Your task to perform on an android device: Empty the shopping cart on amazon.com. Add apple airpods to the cart on amazon.com, then select checkout. Image 0: 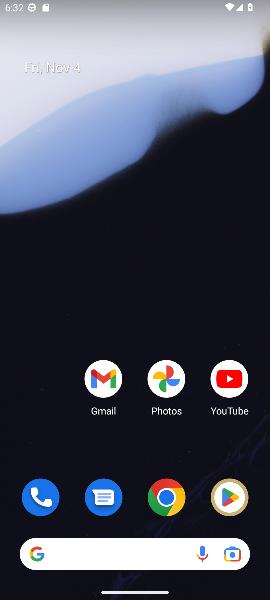
Step 0: click (174, 500)
Your task to perform on an android device: Empty the shopping cart on amazon.com. Add apple airpods to the cart on amazon.com, then select checkout. Image 1: 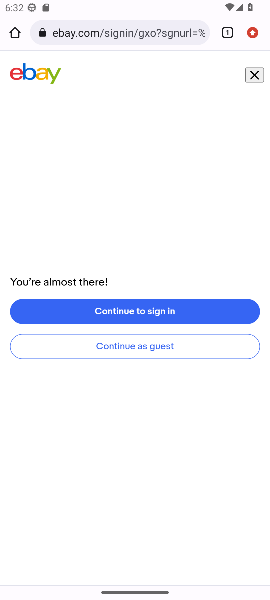
Step 1: click (115, 30)
Your task to perform on an android device: Empty the shopping cart on amazon.com. Add apple airpods to the cart on amazon.com, then select checkout. Image 2: 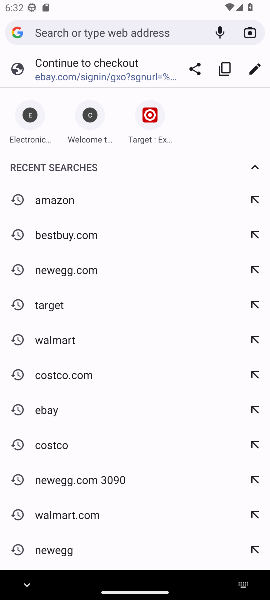
Step 2: type "amazon.com"
Your task to perform on an android device: Empty the shopping cart on amazon.com. Add apple airpods to the cart on amazon.com, then select checkout. Image 3: 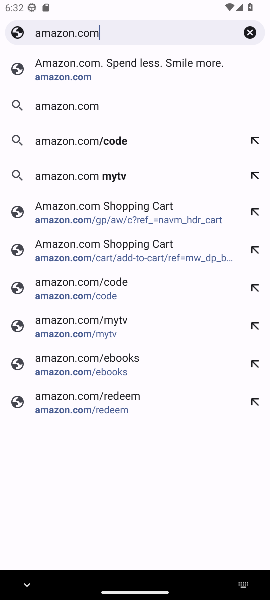
Step 3: click (60, 79)
Your task to perform on an android device: Empty the shopping cart on amazon.com. Add apple airpods to the cart on amazon.com, then select checkout. Image 4: 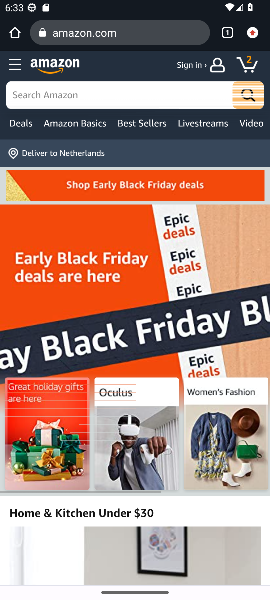
Step 4: click (249, 66)
Your task to perform on an android device: Empty the shopping cart on amazon.com. Add apple airpods to the cart on amazon.com, then select checkout. Image 5: 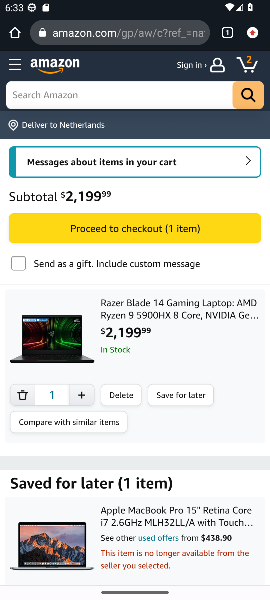
Step 5: click (117, 398)
Your task to perform on an android device: Empty the shopping cart on amazon.com. Add apple airpods to the cart on amazon.com, then select checkout. Image 6: 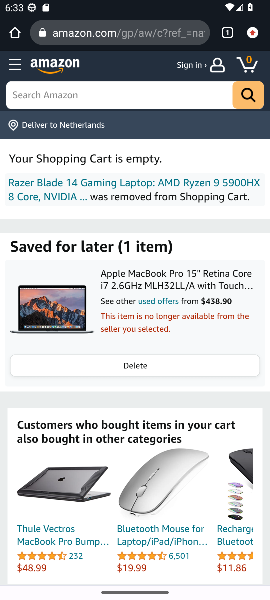
Step 6: click (91, 86)
Your task to perform on an android device: Empty the shopping cart on amazon.com. Add apple airpods to the cart on amazon.com, then select checkout. Image 7: 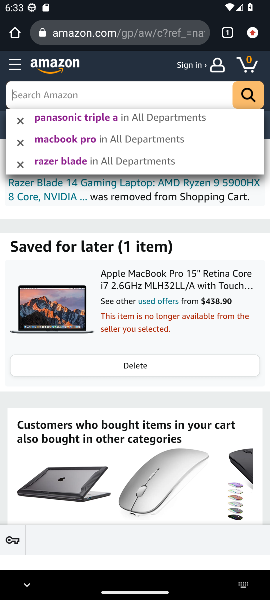
Step 7: type " apple airpods"
Your task to perform on an android device: Empty the shopping cart on amazon.com. Add apple airpods to the cart on amazon.com, then select checkout. Image 8: 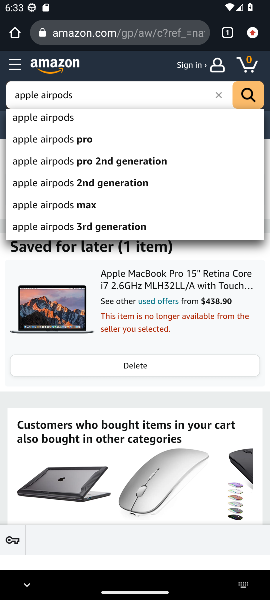
Step 8: click (54, 119)
Your task to perform on an android device: Empty the shopping cart on amazon.com. Add apple airpods to the cart on amazon.com, then select checkout. Image 9: 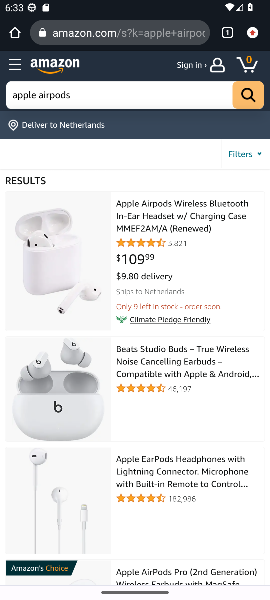
Step 9: click (121, 252)
Your task to perform on an android device: Empty the shopping cart on amazon.com. Add apple airpods to the cart on amazon.com, then select checkout. Image 10: 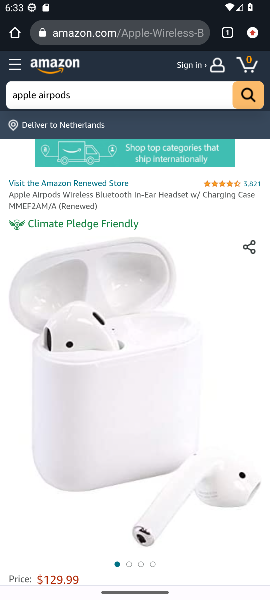
Step 10: drag from (166, 519) to (168, 232)
Your task to perform on an android device: Empty the shopping cart on amazon.com. Add apple airpods to the cart on amazon.com, then select checkout. Image 11: 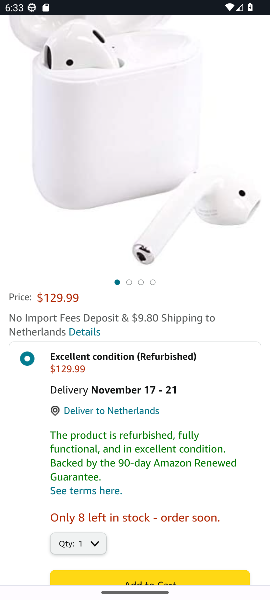
Step 11: drag from (168, 439) to (156, 290)
Your task to perform on an android device: Empty the shopping cart on amazon.com. Add apple airpods to the cart on amazon.com, then select checkout. Image 12: 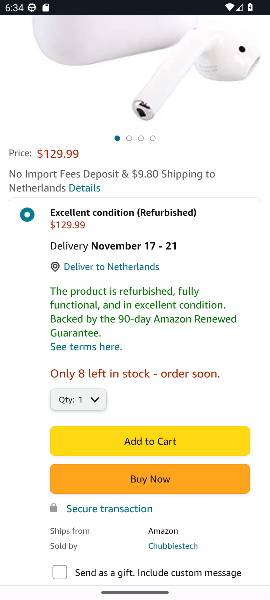
Step 12: click (149, 442)
Your task to perform on an android device: Empty the shopping cart on amazon.com. Add apple airpods to the cart on amazon.com, then select checkout. Image 13: 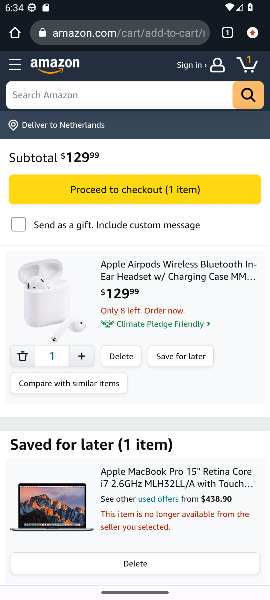
Step 13: click (114, 196)
Your task to perform on an android device: Empty the shopping cart on amazon.com. Add apple airpods to the cart on amazon.com, then select checkout. Image 14: 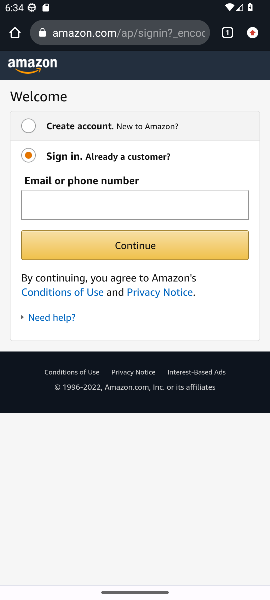
Step 14: task complete